Your task to perform on an android device: turn off wifi Image 0: 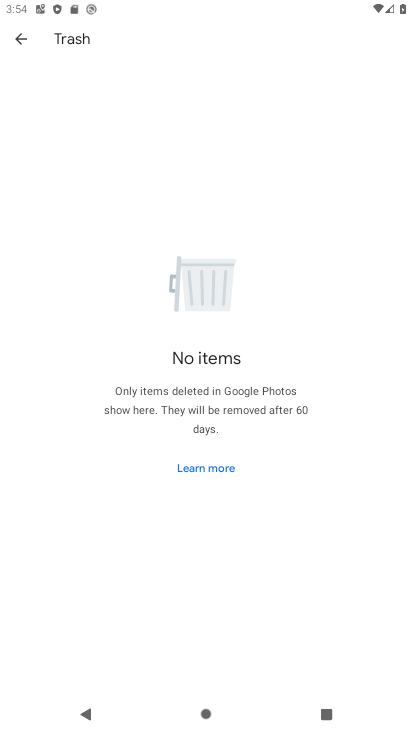
Step 0: press home button
Your task to perform on an android device: turn off wifi Image 1: 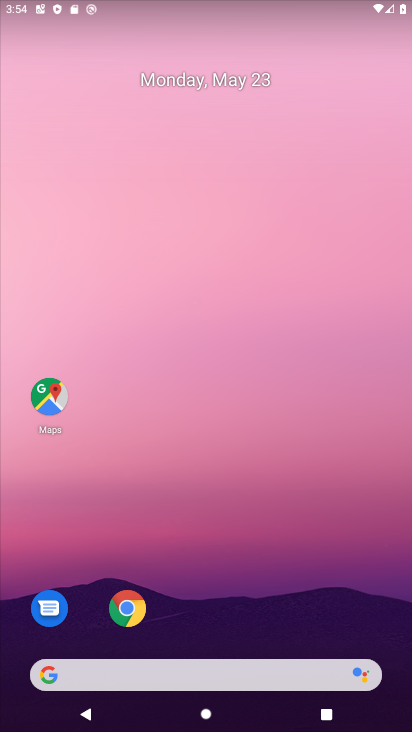
Step 1: drag from (254, 570) to (184, 137)
Your task to perform on an android device: turn off wifi Image 2: 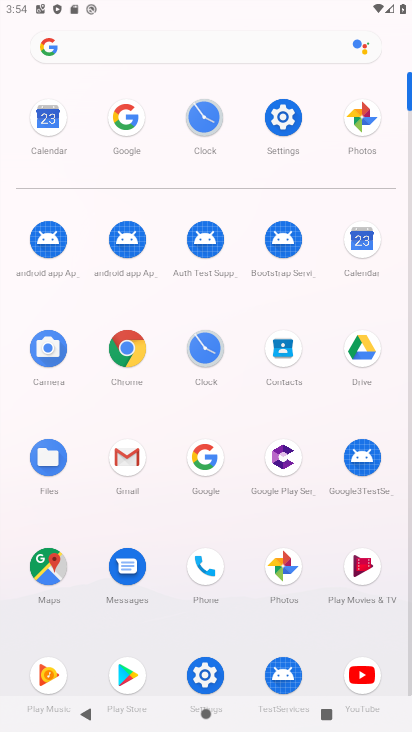
Step 2: click (206, 674)
Your task to perform on an android device: turn off wifi Image 3: 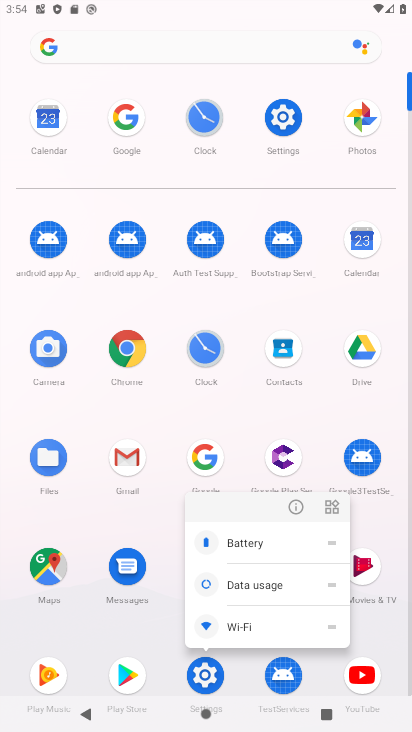
Step 3: click (206, 674)
Your task to perform on an android device: turn off wifi Image 4: 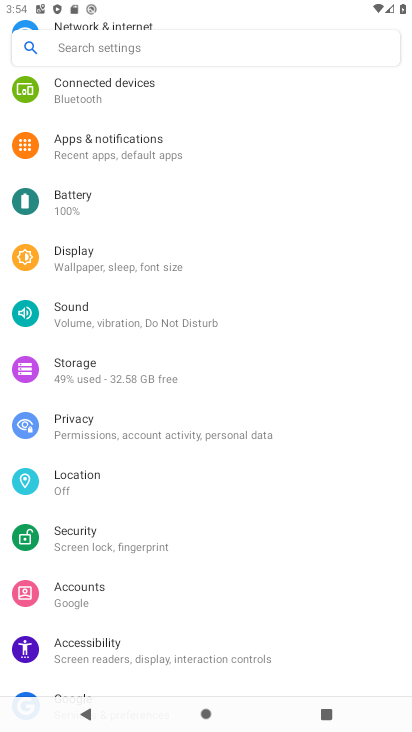
Step 4: drag from (150, 295) to (178, 419)
Your task to perform on an android device: turn off wifi Image 5: 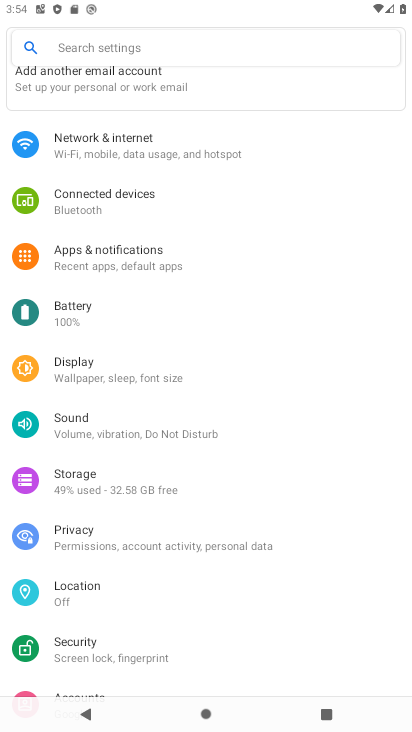
Step 5: drag from (170, 227) to (183, 355)
Your task to perform on an android device: turn off wifi Image 6: 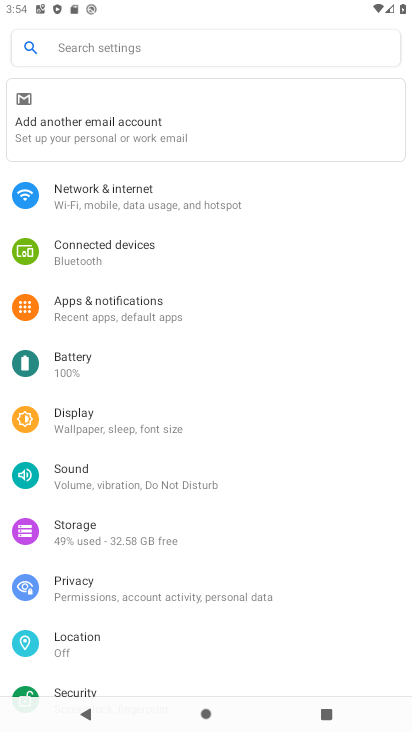
Step 6: click (125, 201)
Your task to perform on an android device: turn off wifi Image 7: 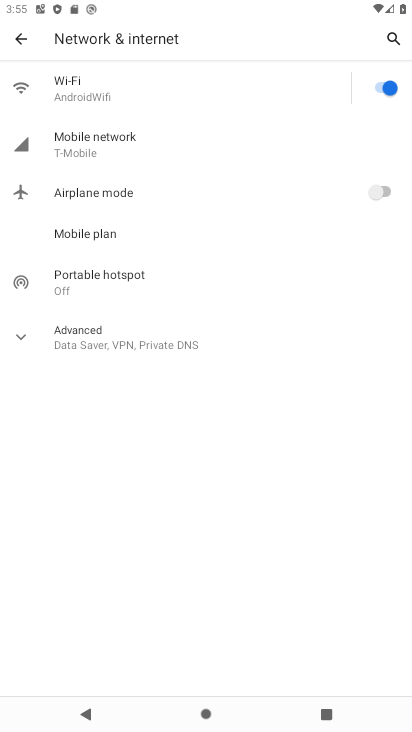
Step 7: click (385, 84)
Your task to perform on an android device: turn off wifi Image 8: 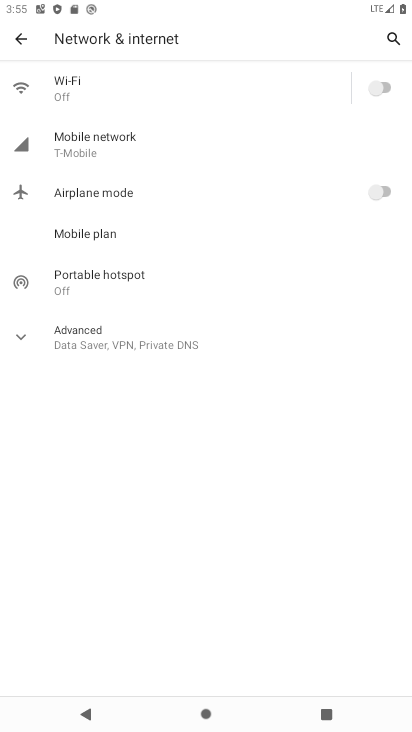
Step 8: task complete